Your task to perform on an android device: Go to Android settings Image 0: 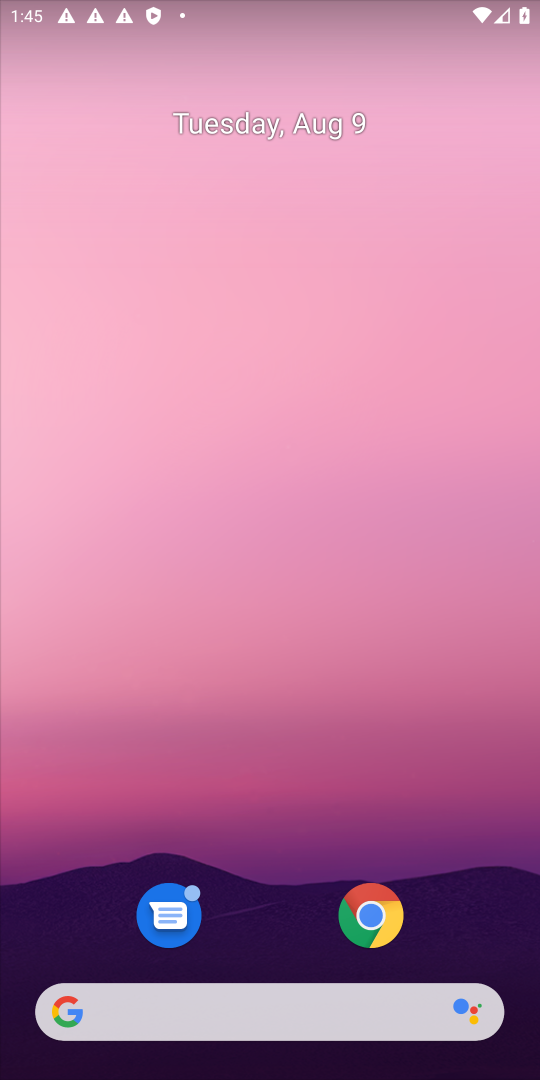
Step 0: click (25, 68)
Your task to perform on an android device: Go to Android settings Image 1: 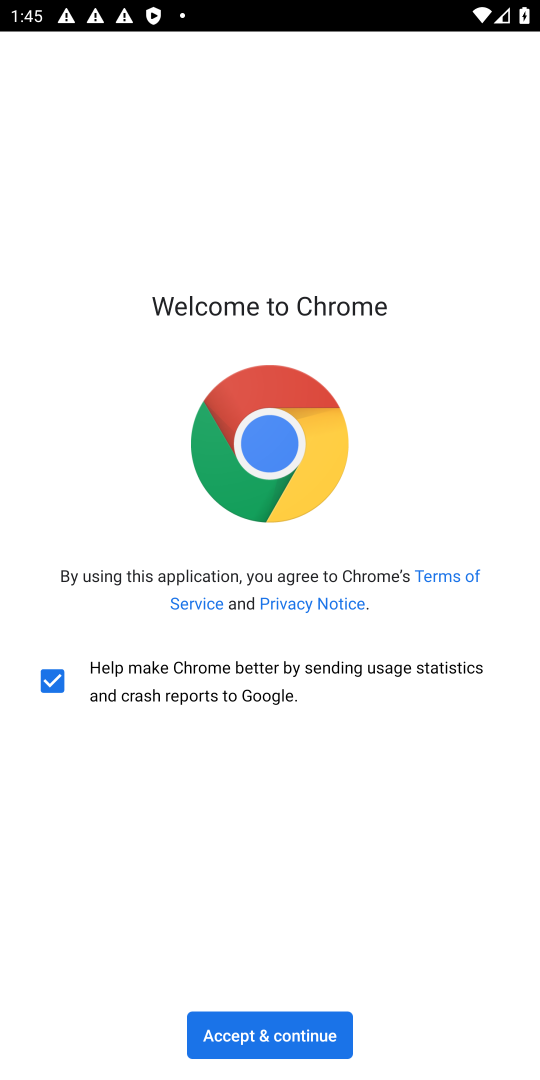
Step 1: press back button
Your task to perform on an android device: Go to Android settings Image 2: 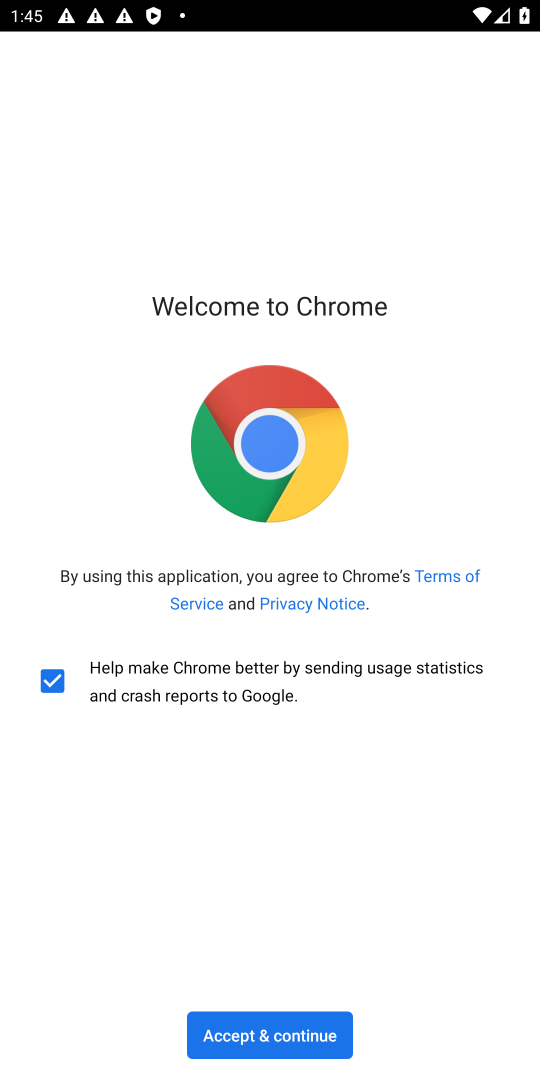
Step 2: press home button
Your task to perform on an android device: Go to Android settings Image 3: 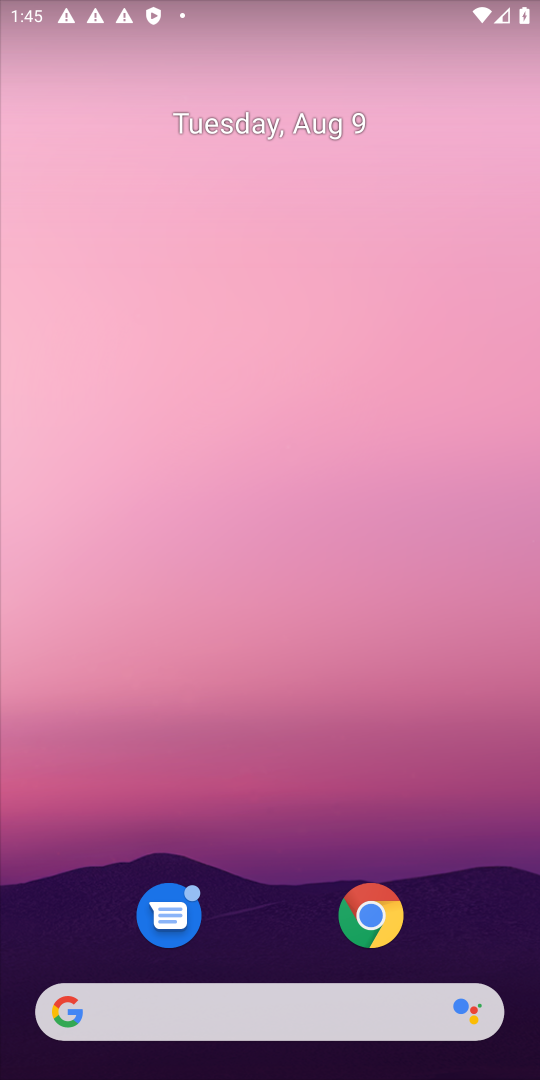
Step 3: click (172, 335)
Your task to perform on an android device: Go to Android settings Image 4: 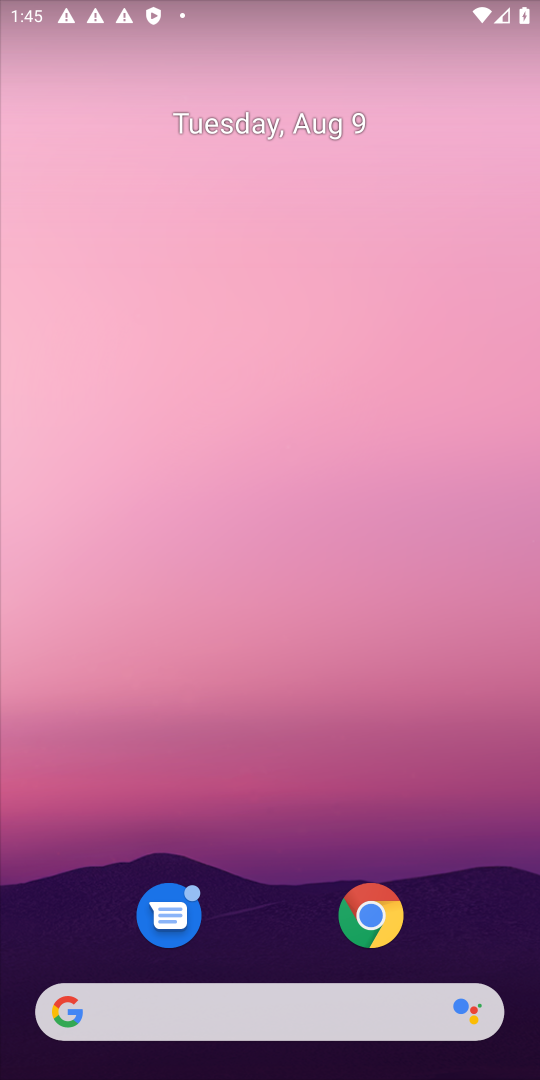
Step 4: drag from (308, 977) to (205, 238)
Your task to perform on an android device: Go to Android settings Image 5: 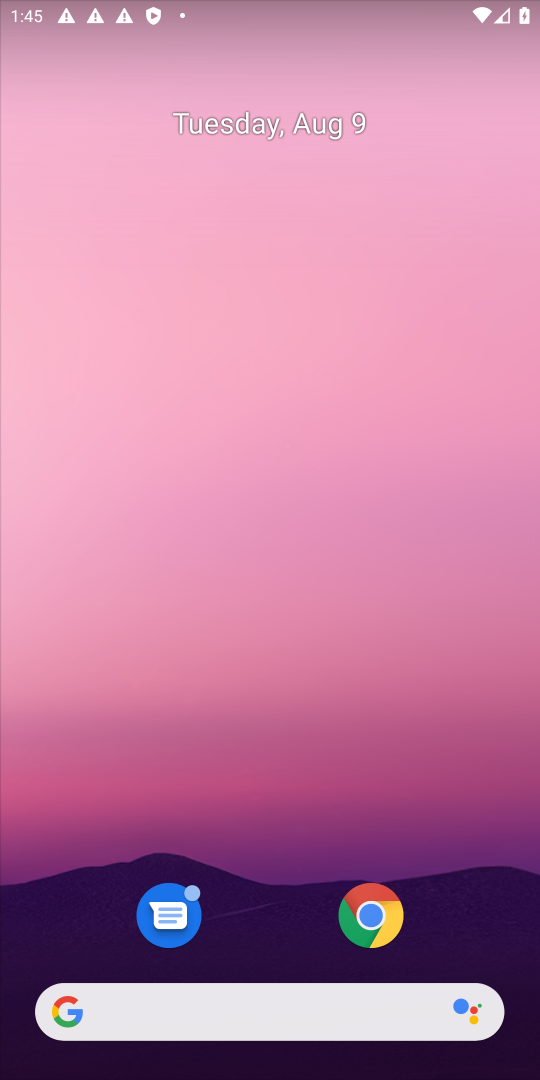
Step 5: drag from (302, 594) to (285, 274)
Your task to perform on an android device: Go to Android settings Image 6: 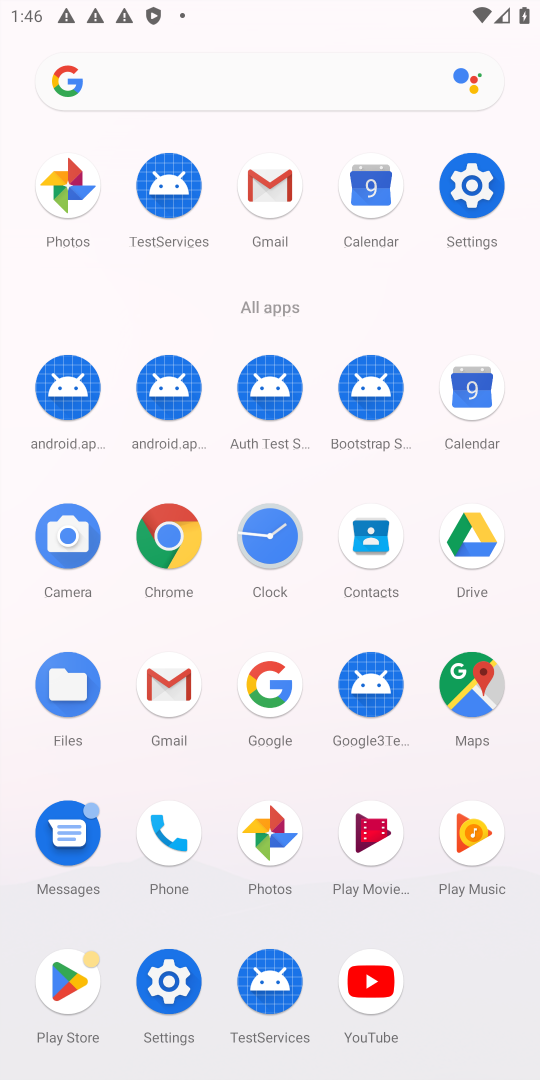
Step 6: click (173, 995)
Your task to perform on an android device: Go to Android settings Image 7: 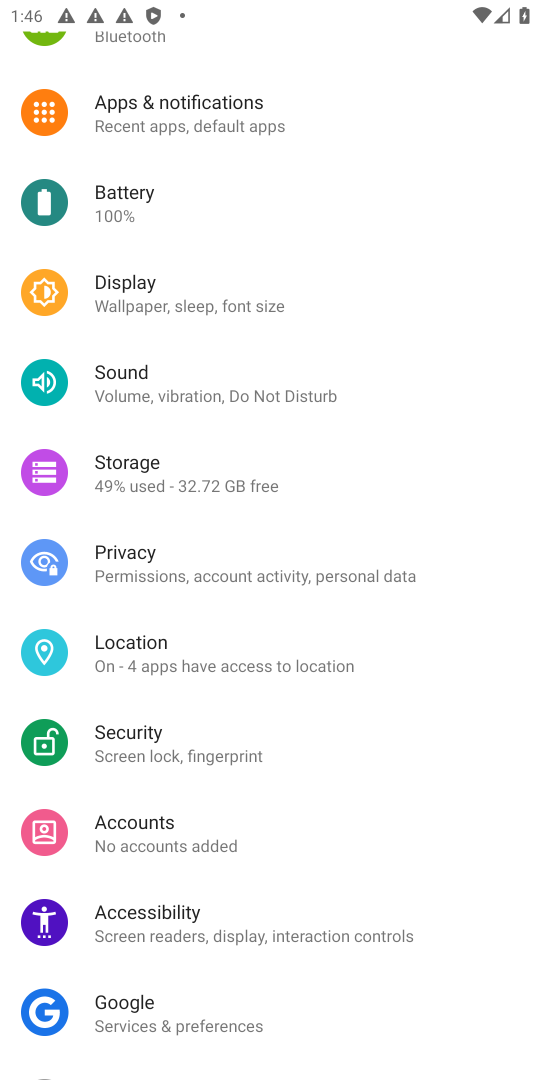
Step 7: drag from (151, 892) to (45, 478)
Your task to perform on an android device: Go to Android settings Image 8: 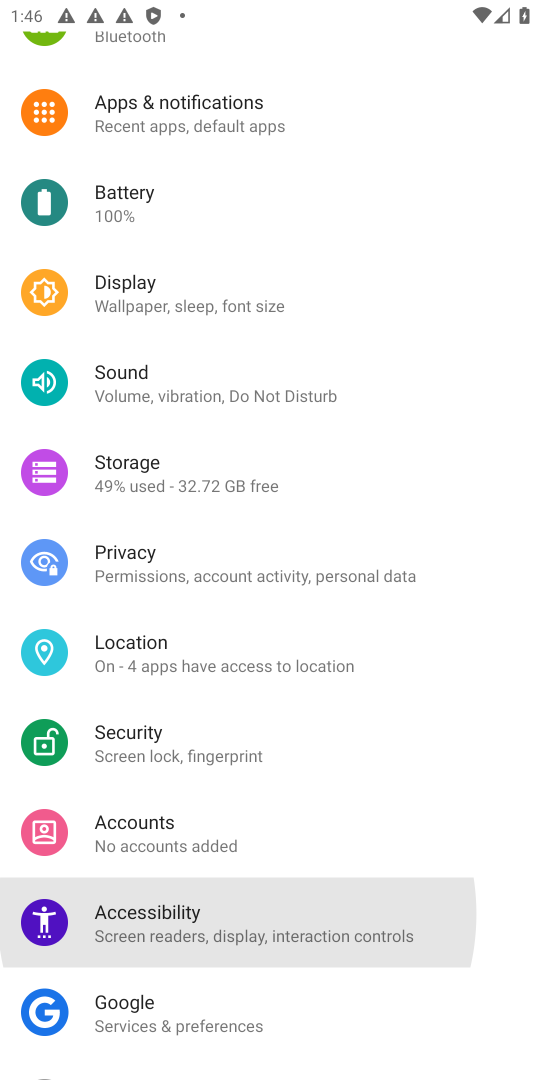
Step 8: drag from (201, 830) to (153, 505)
Your task to perform on an android device: Go to Android settings Image 9: 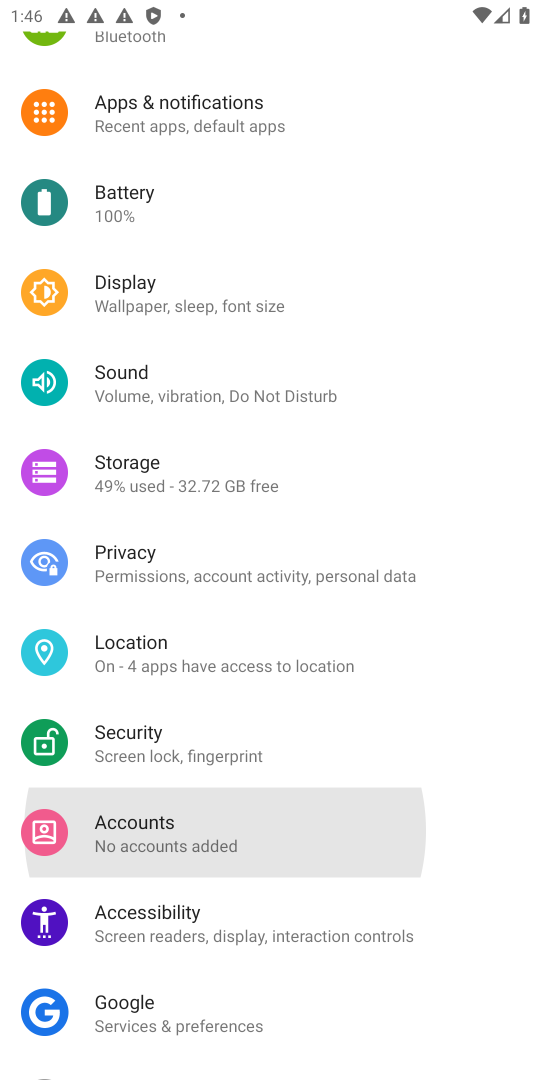
Step 9: drag from (225, 795) to (203, 453)
Your task to perform on an android device: Go to Android settings Image 10: 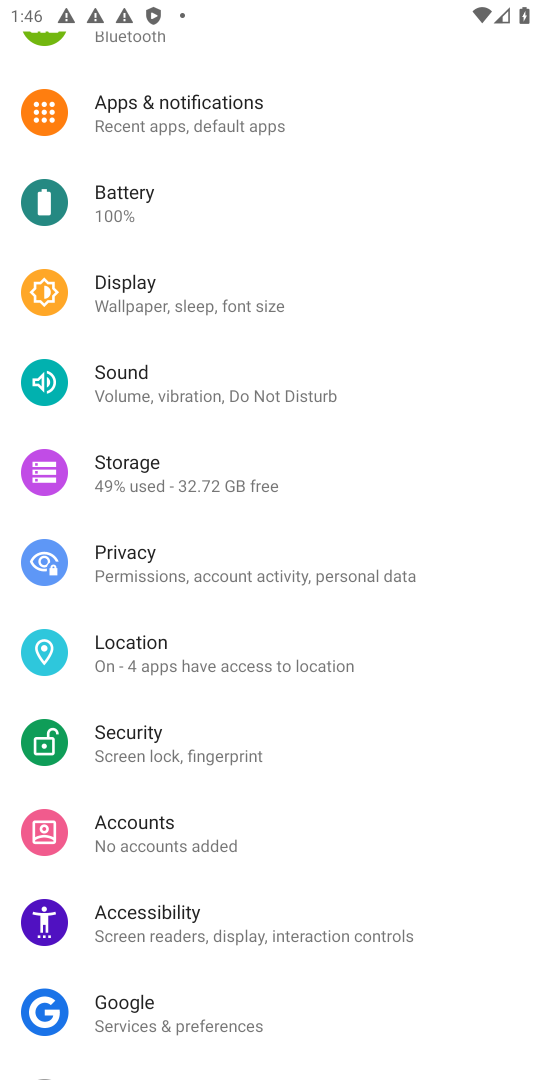
Step 10: click (186, 313)
Your task to perform on an android device: Go to Android settings Image 11: 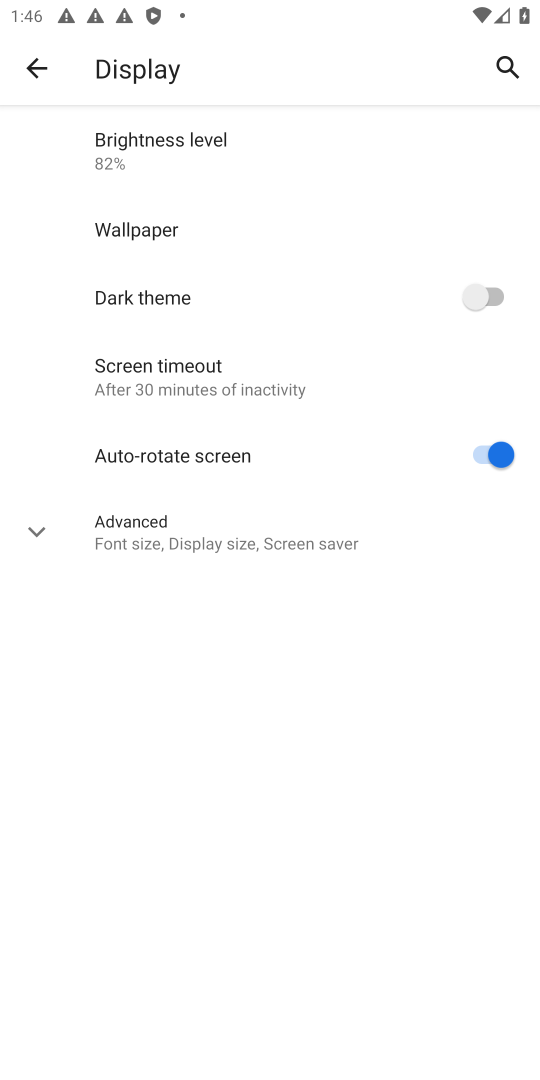
Step 11: click (25, 71)
Your task to perform on an android device: Go to Android settings Image 12: 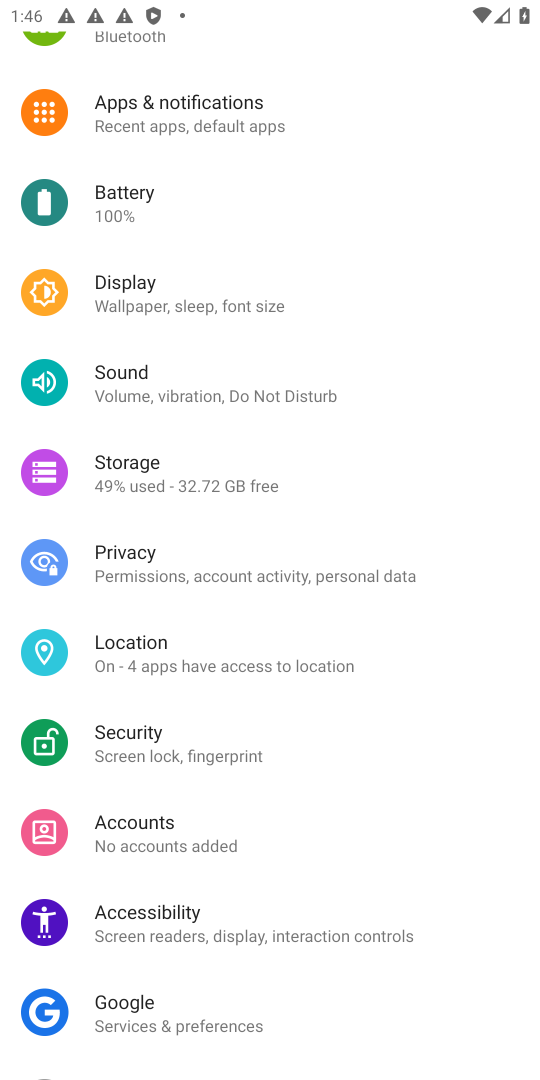
Step 12: drag from (168, 1013) to (132, 410)
Your task to perform on an android device: Go to Android settings Image 13: 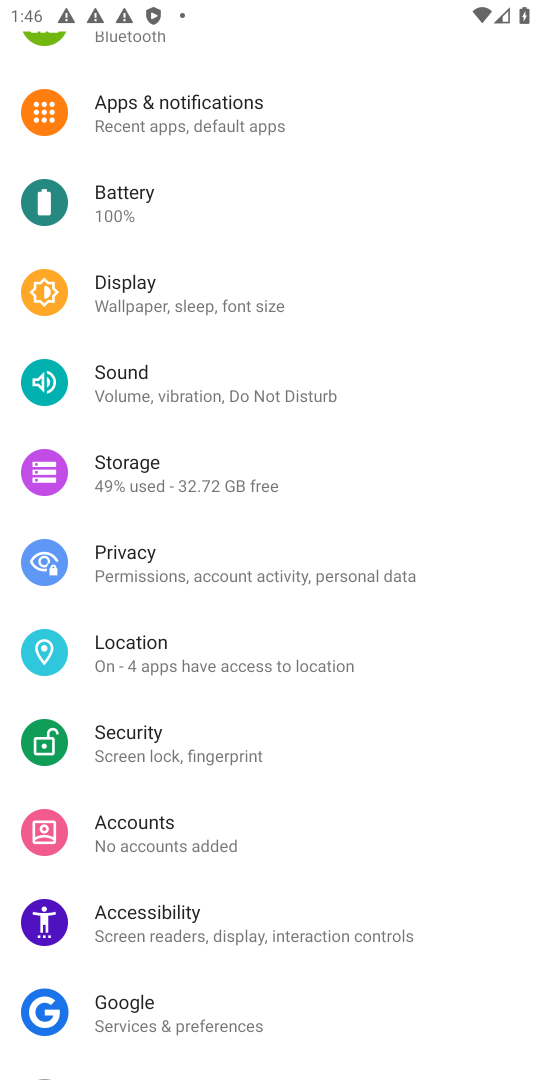
Step 13: drag from (239, 993) to (127, 447)
Your task to perform on an android device: Go to Android settings Image 14: 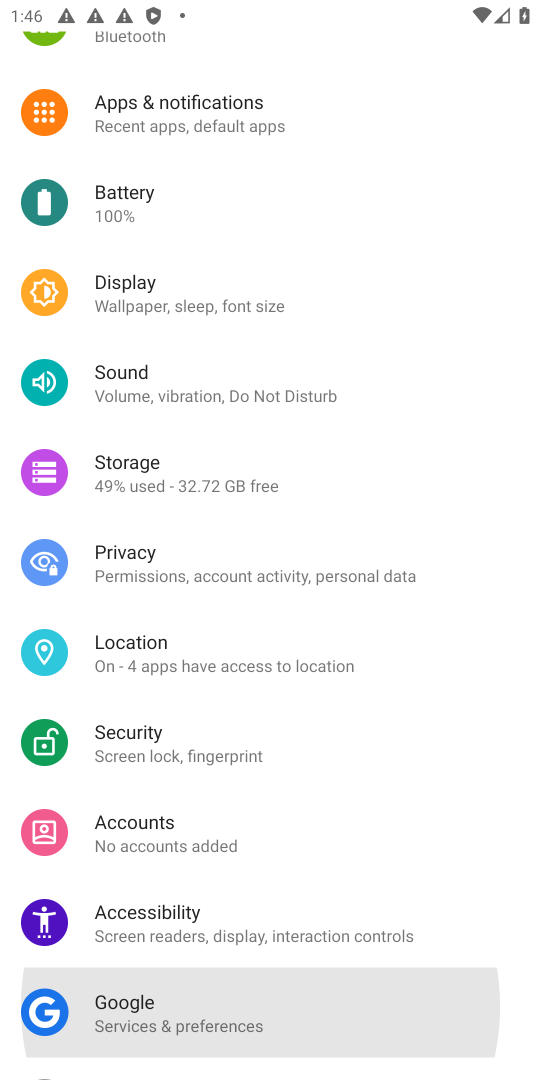
Step 14: drag from (190, 934) to (125, 570)
Your task to perform on an android device: Go to Android settings Image 15: 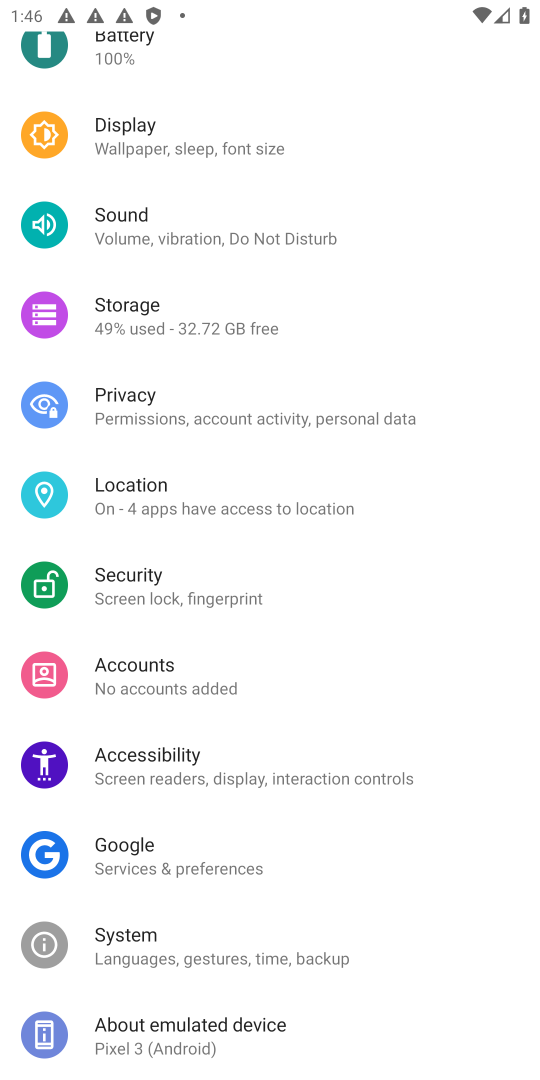
Step 15: drag from (181, 1006) to (125, 658)
Your task to perform on an android device: Go to Android settings Image 16: 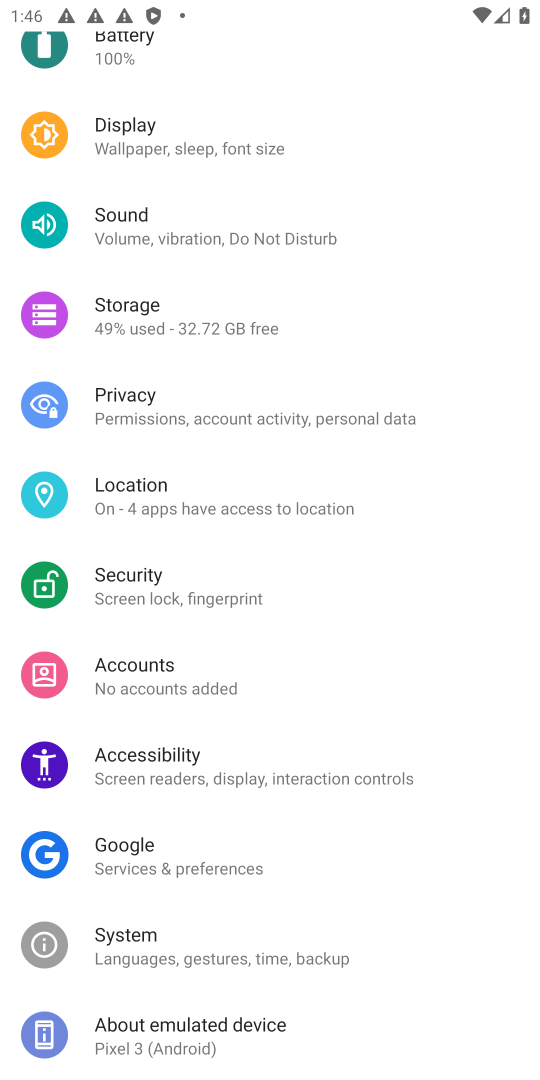
Step 16: click (154, 1037)
Your task to perform on an android device: Go to Android settings Image 17: 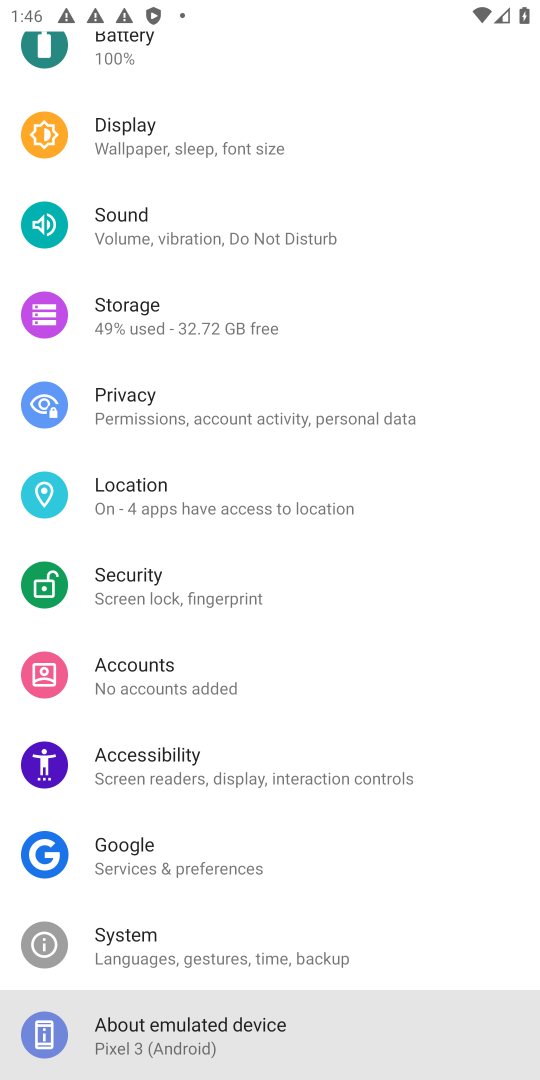
Step 17: click (154, 1037)
Your task to perform on an android device: Go to Android settings Image 18: 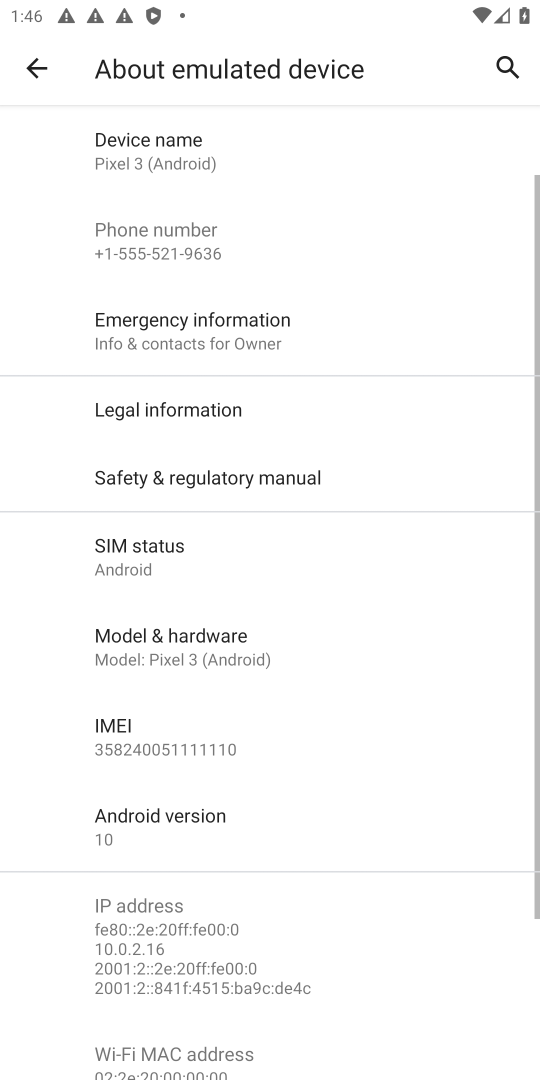
Step 18: task complete